Your task to perform on an android device: Go to display settings Image 0: 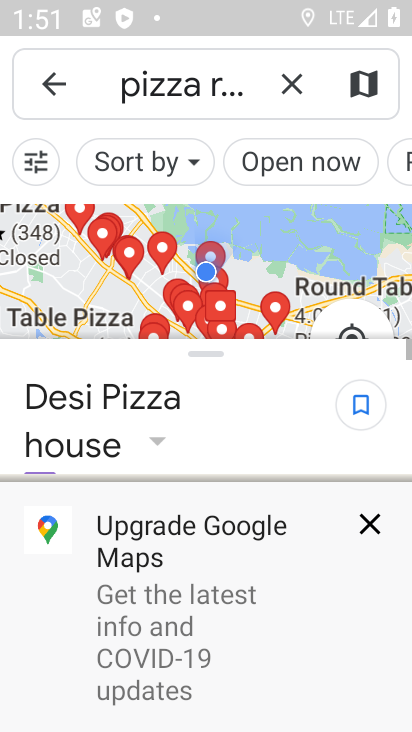
Step 0: press home button
Your task to perform on an android device: Go to display settings Image 1: 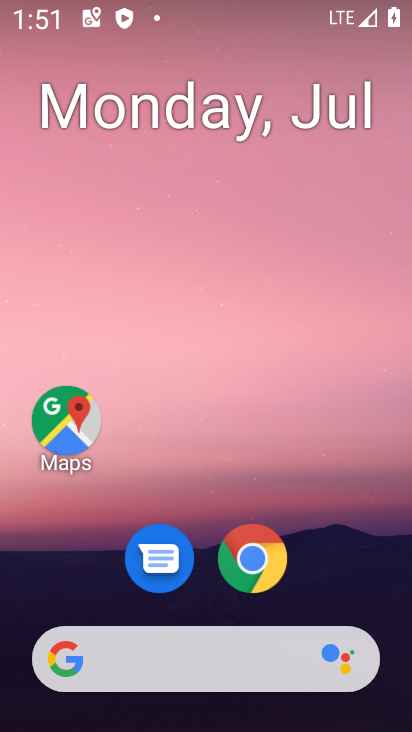
Step 1: drag from (371, 569) to (336, 74)
Your task to perform on an android device: Go to display settings Image 2: 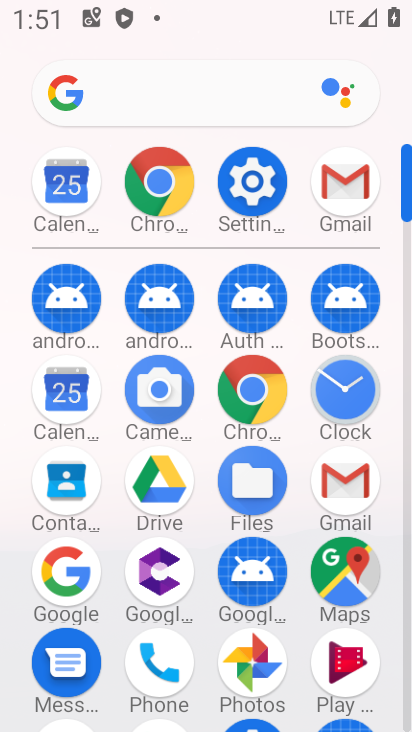
Step 2: click (255, 196)
Your task to perform on an android device: Go to display settings Image 3: 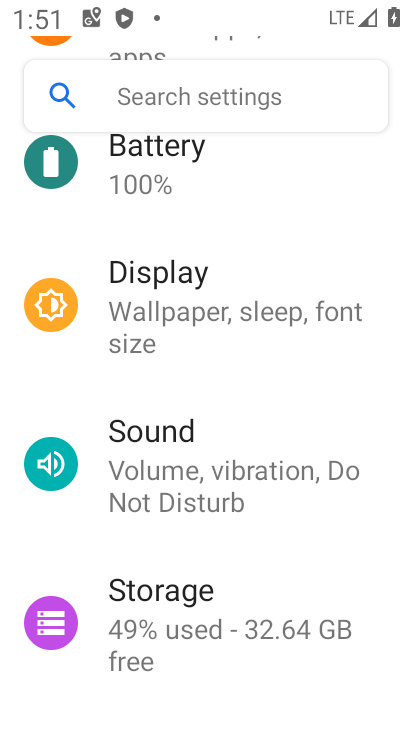
Step 3: drag from (321, 205) to (335, 358)
Your task to perform on an android device: Go to display settings Image 4: 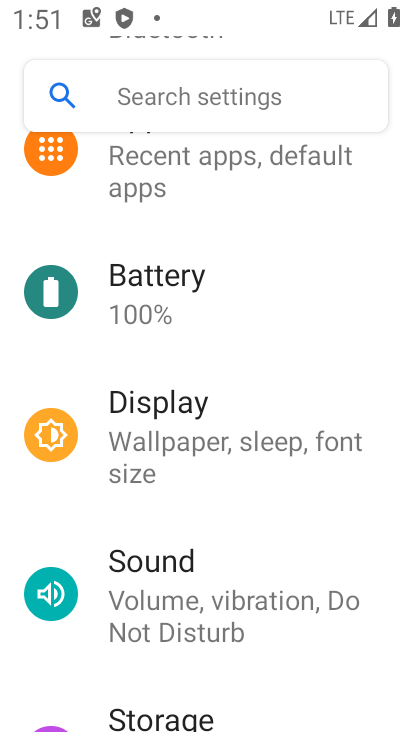
Step 4: drag from (359, 213) to (360, 381)
Your task to perform on an android device: Go to display settings Image 5: 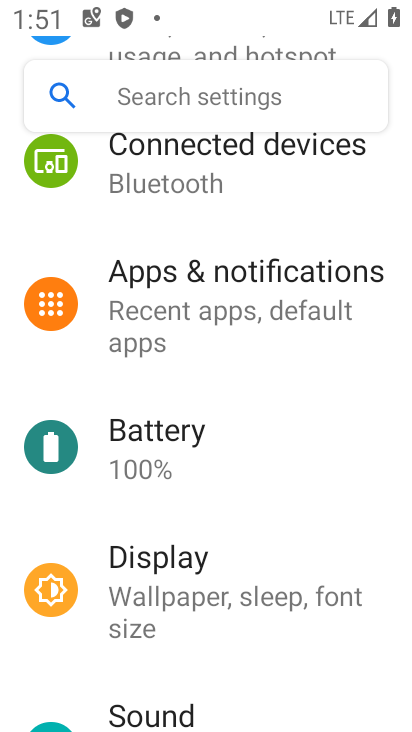
Step 5: drag from (370, 170) to (375, 387)
Your task to perform on an android device: Go to display settings Image 6: 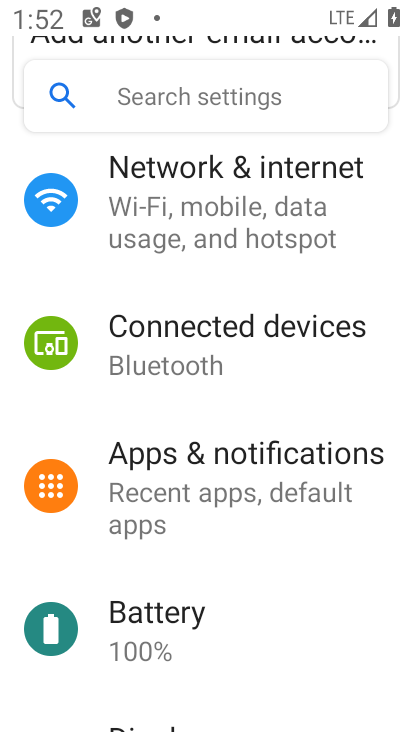
Step 6: drag from (374, 177) to (371, 402)
Your task to perform on an android device: Go to display settings Image 7: 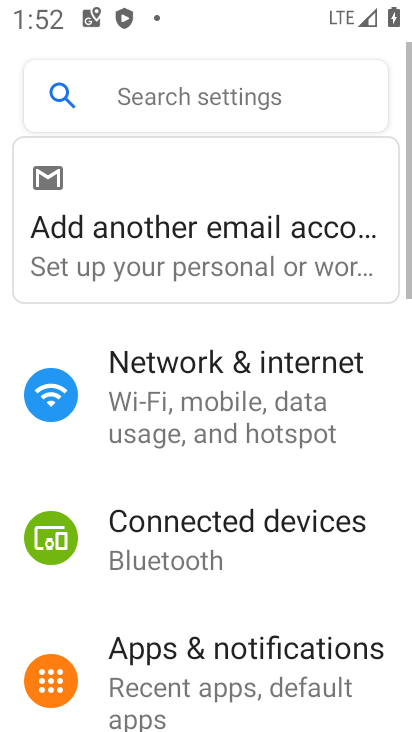
Step 7: drag from (371, 405) to (374, 277)
Your task to perform on an android device: Go to display settings Image 8: 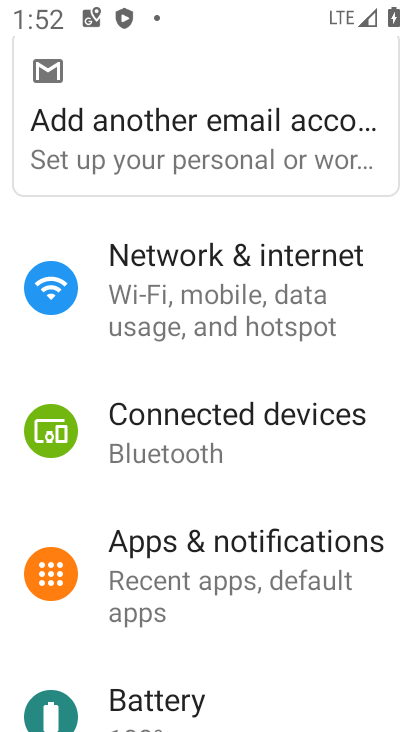
Step 8: drag from (372, 402) to (374, 265)
Your task to perform on an android device: Go to display settings Image 9: 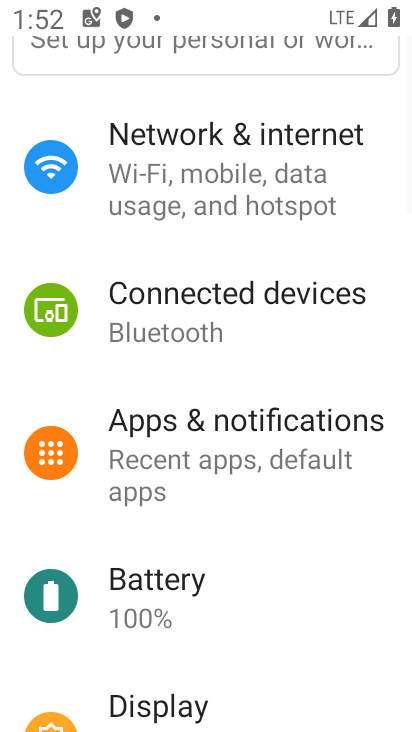
Step 9: drag from (377, 440) to (378, 309)
Your task to perform on an android device: Go to display settings Image 10: 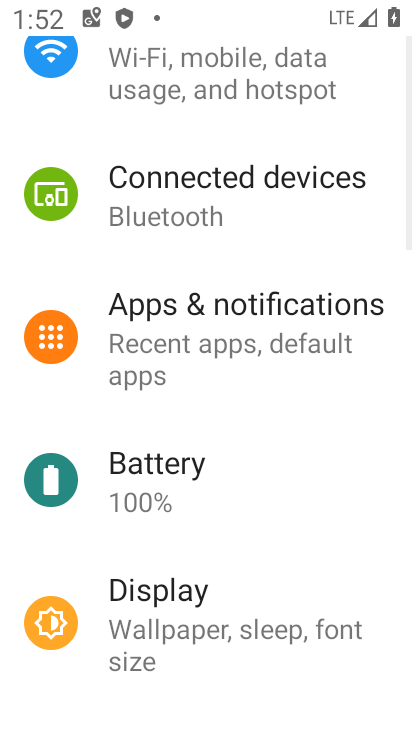
Step 10: drag from (350, 477) to (349, 362)
Your task to perform on an android device: Go to display settings Image 11: 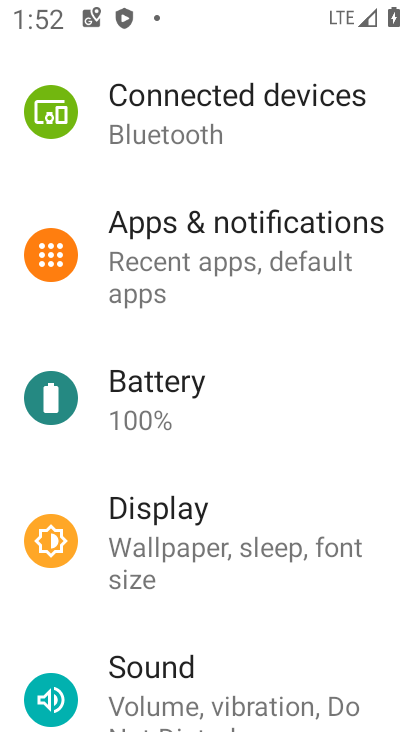
Step 11: drag from (317, 545) to (300, 369)
Your task to perform on an android device: Go to display settings Image 12: 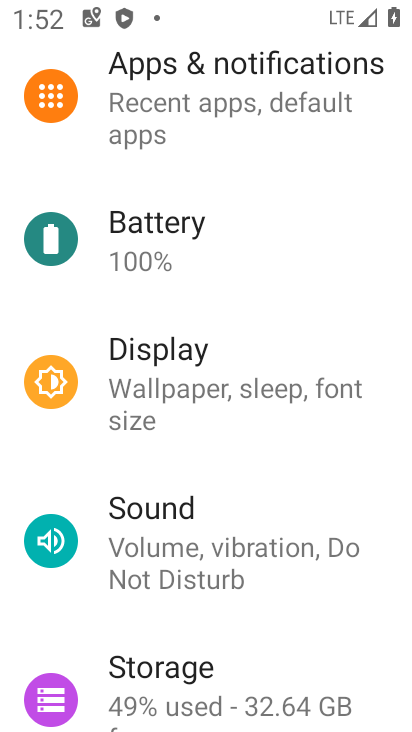
Step 12: click (280, 394)
Your task to perform on an android device: Go to display settings Image 13: 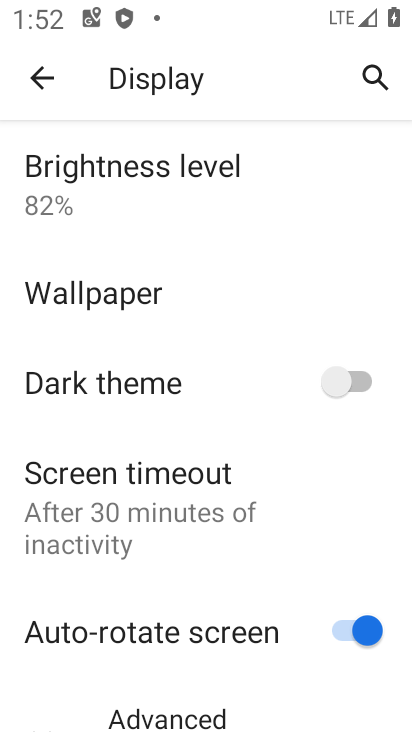
Step 13: drag from (298, 471) to (300, 340)
Your task to perform on an android device: Go to display settings Image 14: 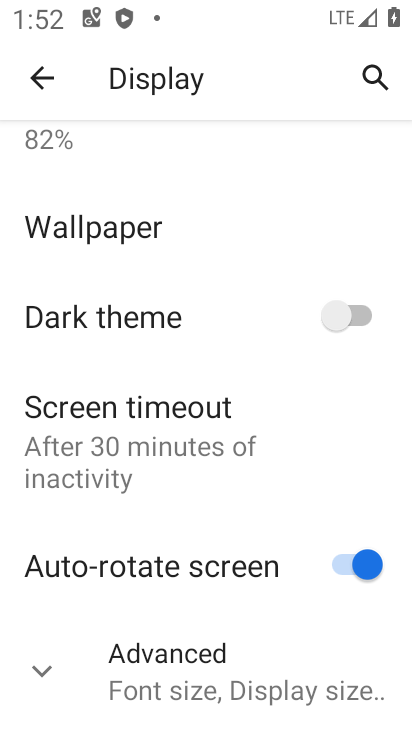
Step 14: drag from (312, 411) to (313, 261)
Your task to perform on an android device: Go to display settings Image 15: 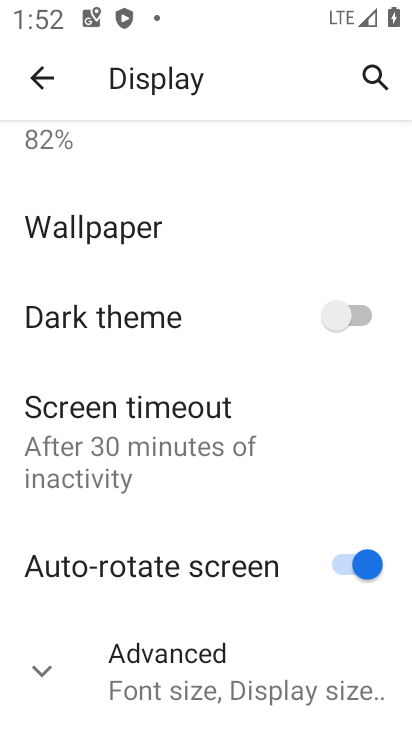
Step 15: drag from (281, 482) to (283, 314)
Your task to perform on an android device: Go to display settings Image 16: 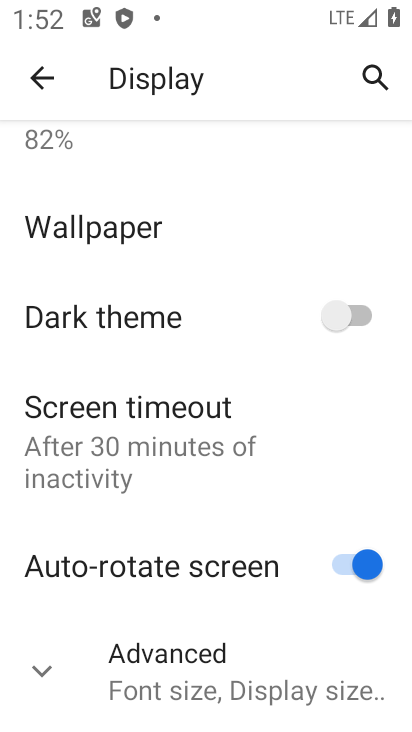
Step 16: click (237, 645)
Your task to perform on an android device: Go to display settings Image 17: 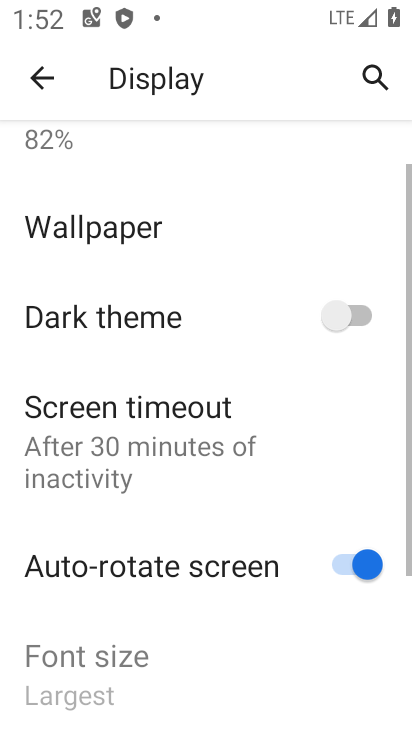
Step 17: task complete